Your task to perform on an android device: turn on airplane mode Image 0: 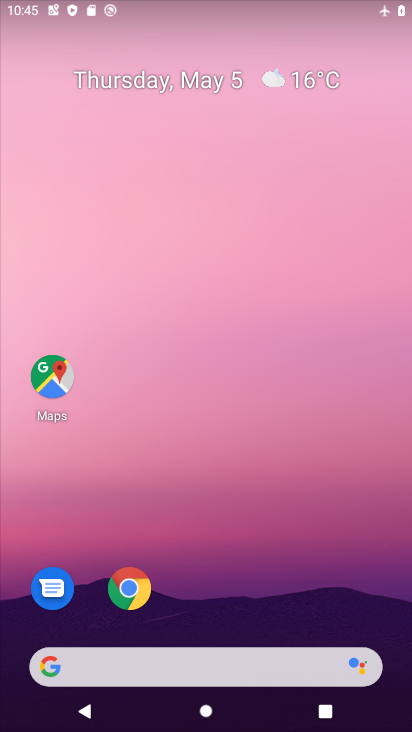
Step 0: click (172, 64)
Your task to perform on an android device: turn on airplane mode Image 1: 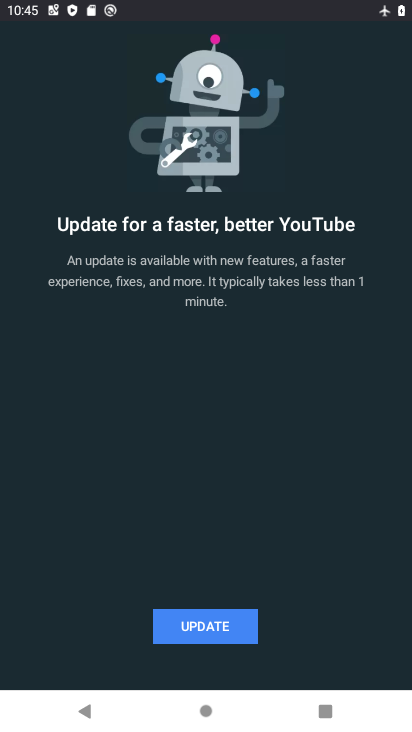
Step 1: task complete